Your task to perform on an android device: turn pop-ups on in chrome Image 0: 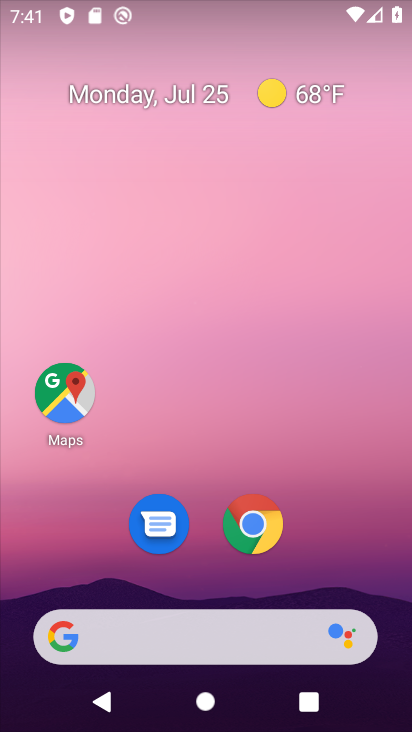
Step 0: click (256, 524)
Your task to perform on an android device: turn pop-ups on in chrome Image 1: 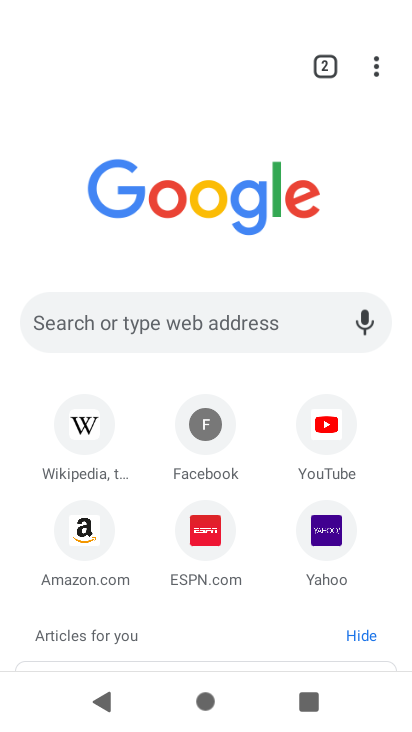
Step 1: click (375, 62)
Your task to perform on an android device: turn pop-ups on in chrome Image 2: 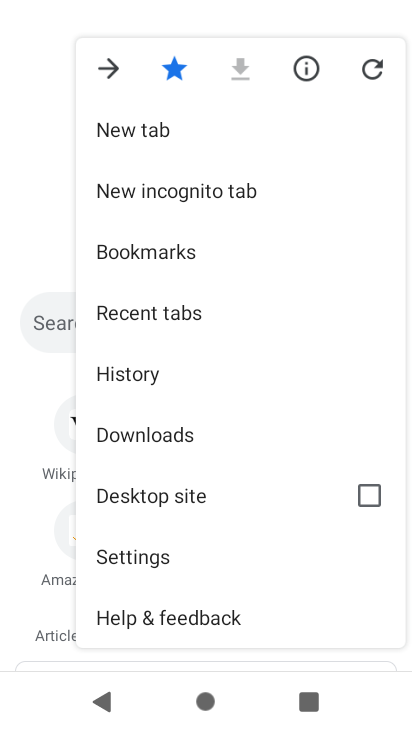
Step 2: click (160, 557)
Your task to perform on an android device: turn pop-ups on in chrome Image 3: 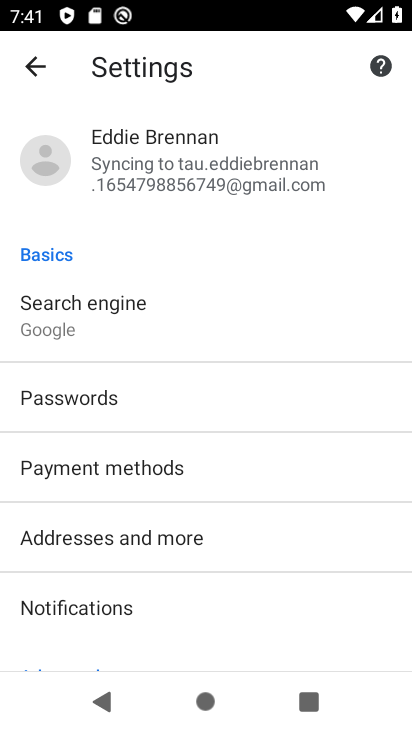
Step 3: drag from (214, 593) to (246, 244)
Your task to perform on an android device: turn pop-ups on in chrome Image 4: 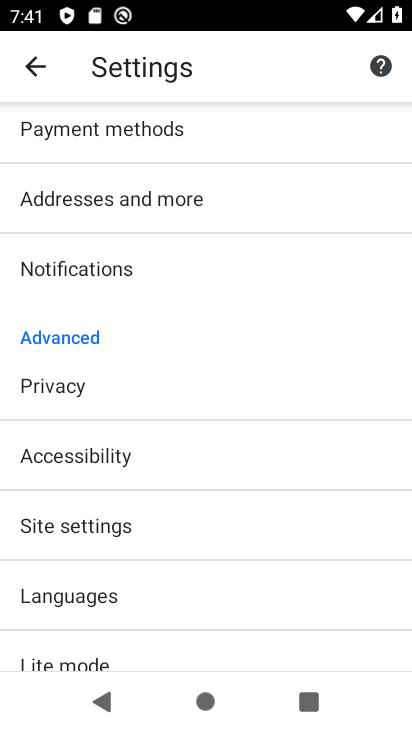
Step 4: click (174, 527)
Your task to perform on an android device: turn pop-ups on in chrome Image 5: 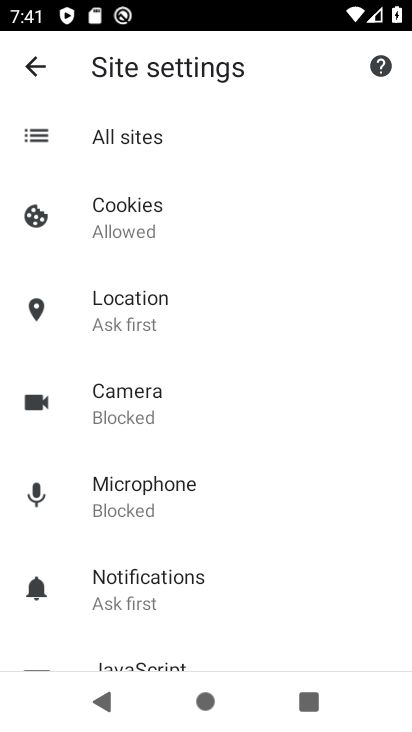
Step 5: drag from (220, 509) to (231, 263)
Your task to perform on an android device: turn pop-ups on in chrome Image 6: 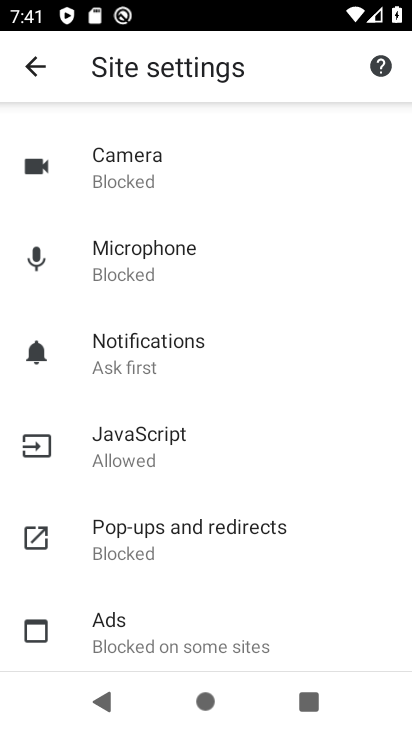
Step 6: click (225, 531)
Your task to perform on an android device: turn pop-ups on in chrome Image 7: 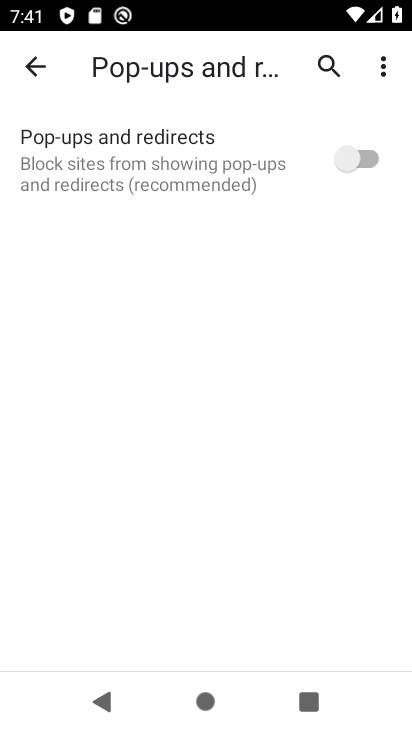
Step 7: click (351, 153)
Your task to perform on an android device: turn pop-ups on in chrome Image 8: 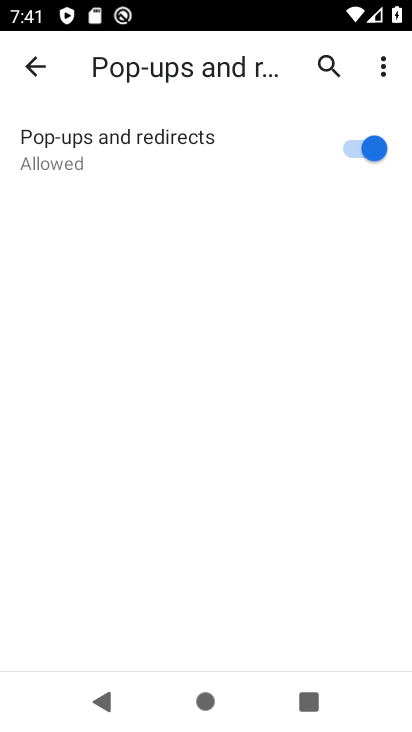
Step 8: task complete